Your task to perform on an android device: What is the capital of Brazil? Image 0: 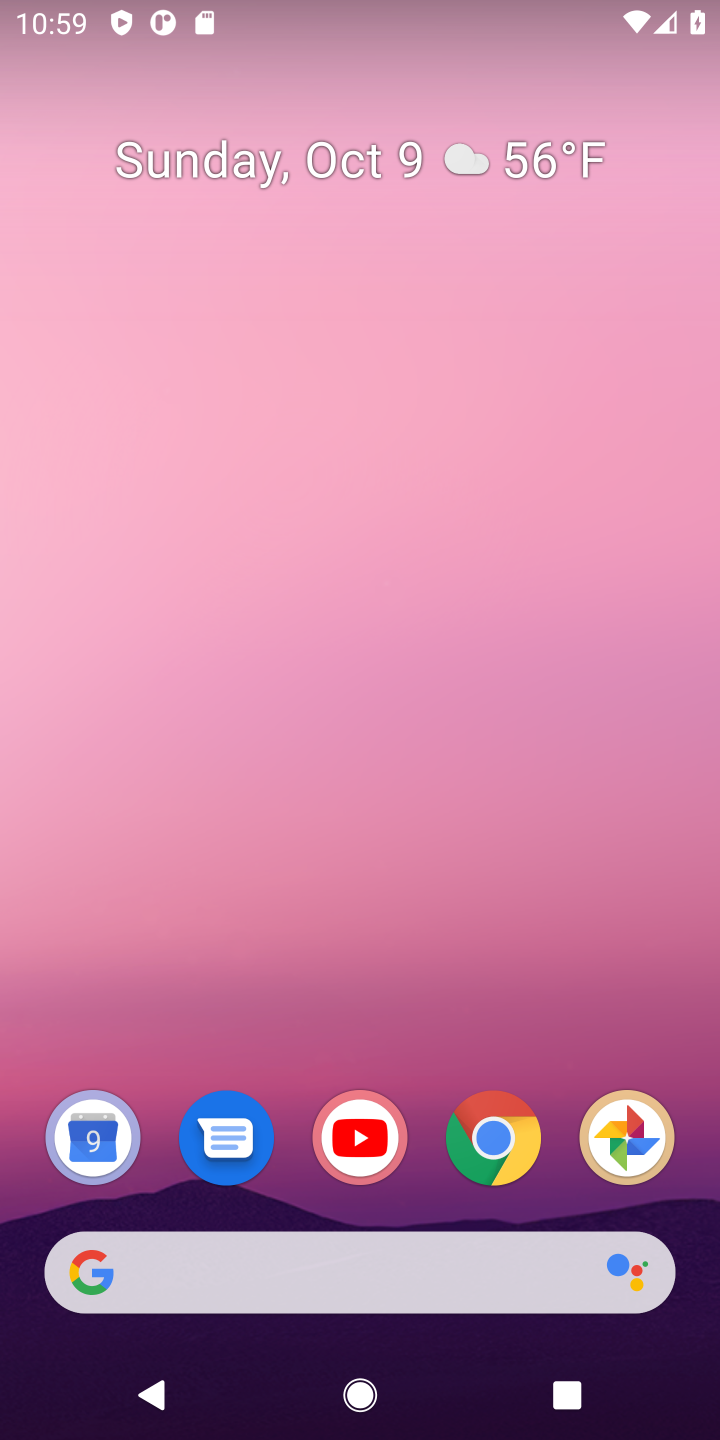
Step 0: drag from (410, 1067) to (350, 89)
Your task to perform on an android device: What is the capital of Brazil? Image 1: 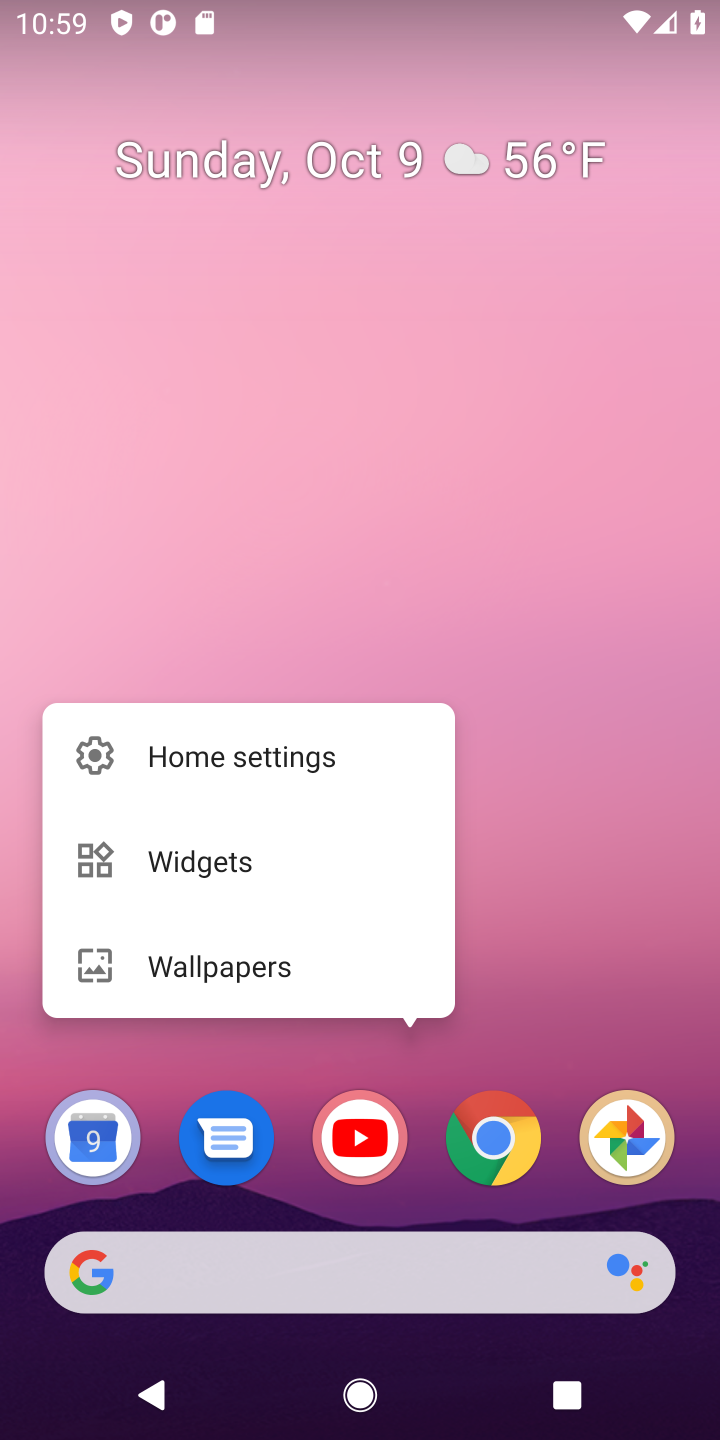
Step 1: click (588, 991)
Your task to perform on an android device: What is the capital of Brazil? Image 2: 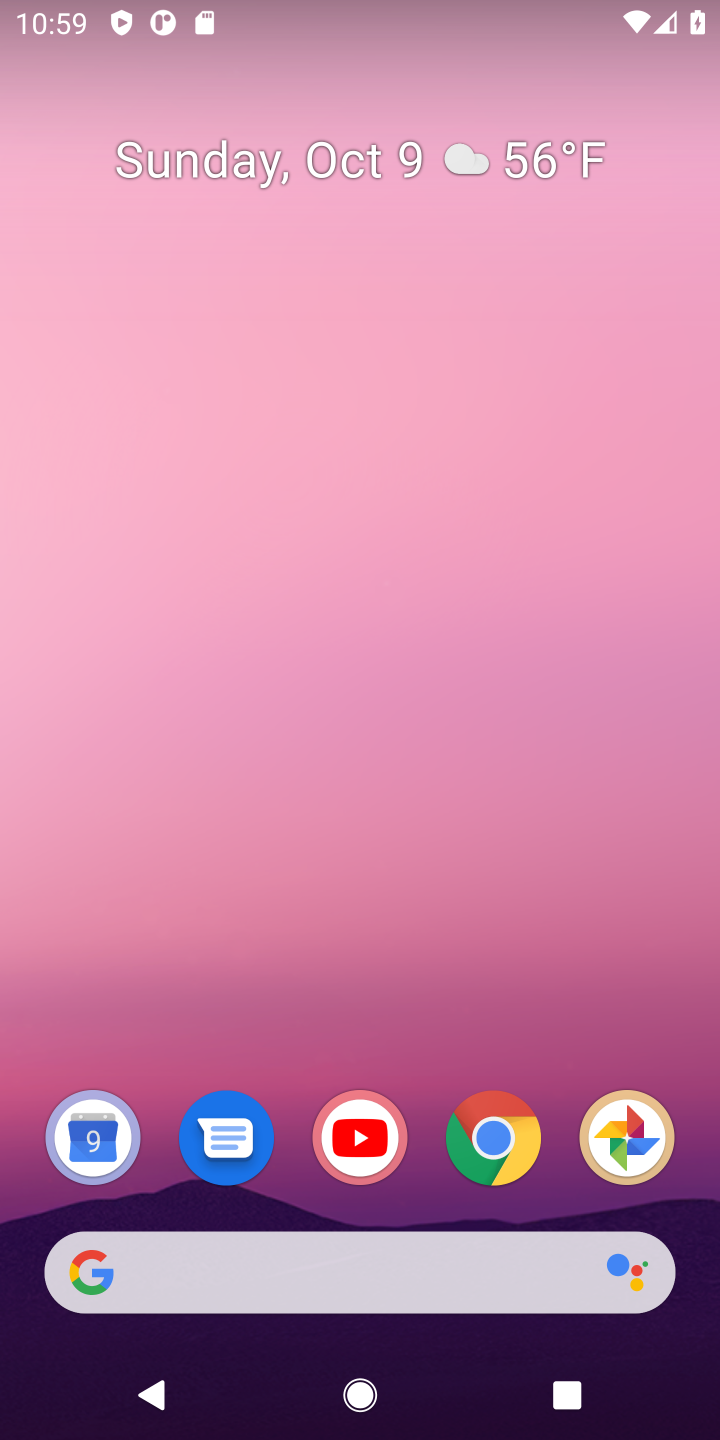
Step 2: drag from (425, 1047) to (425, 83)
Your task to perform on an android device: What is the capital of Brazil? Image 3: 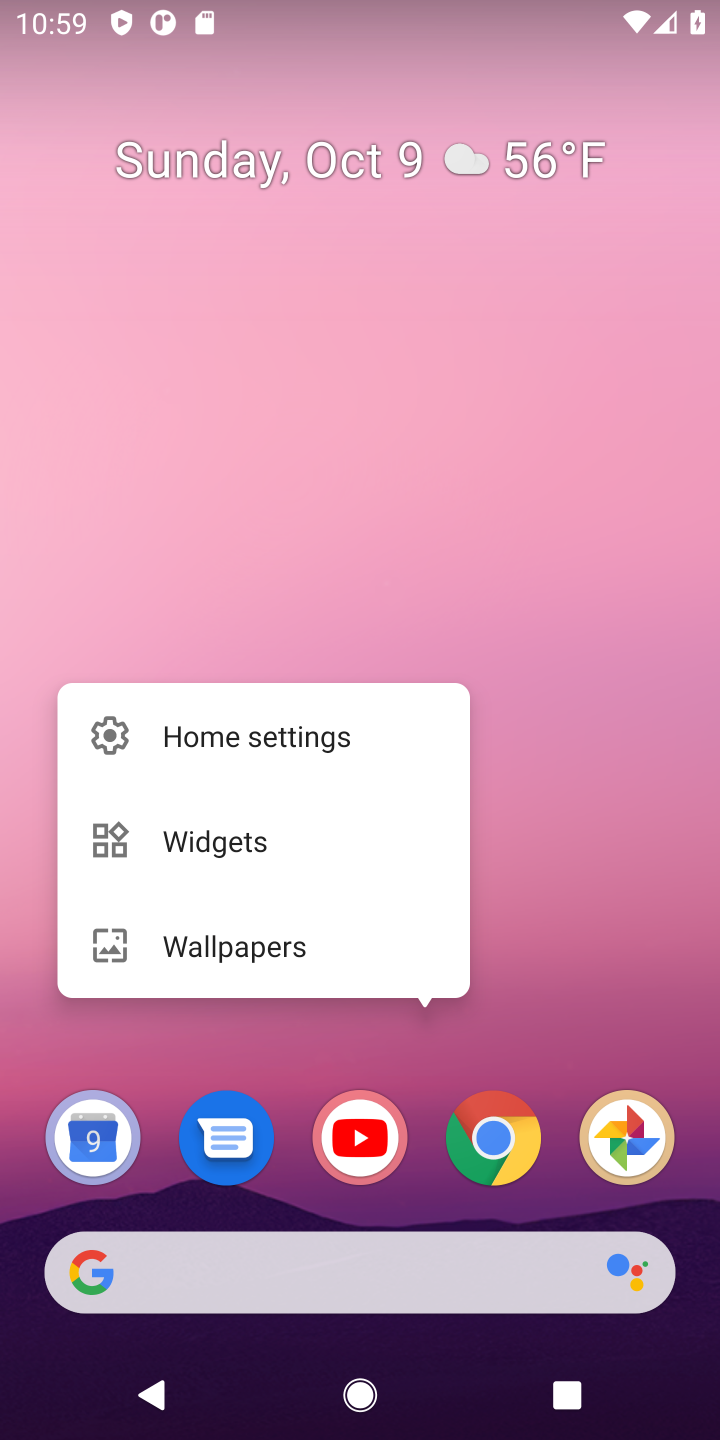
Step 3: click (598, 821)
Your task to perform on an android device: What is the capital of Brazil? Image 4: 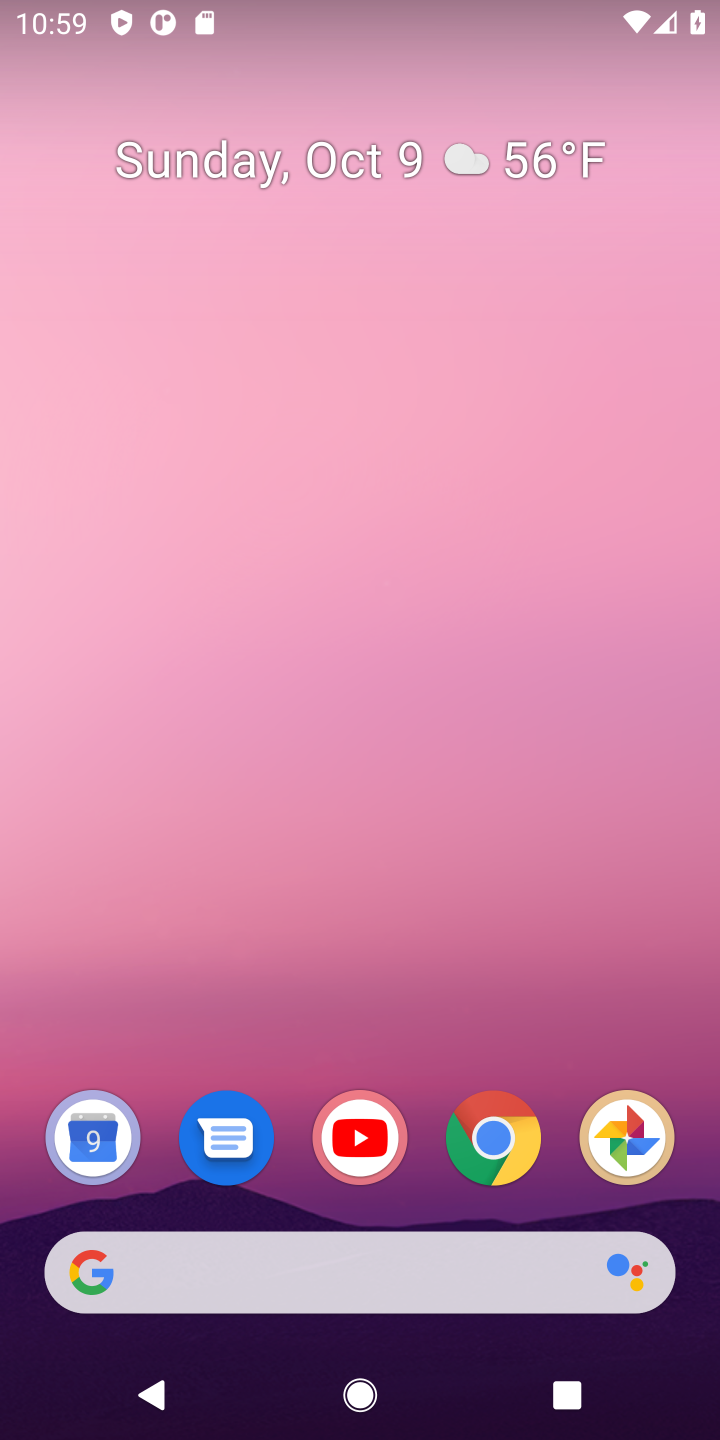
Step 4: drag from (561, 1071) to (538, 42)
Your task to perform on an android device: What is the capital of Brazil? Image 5: 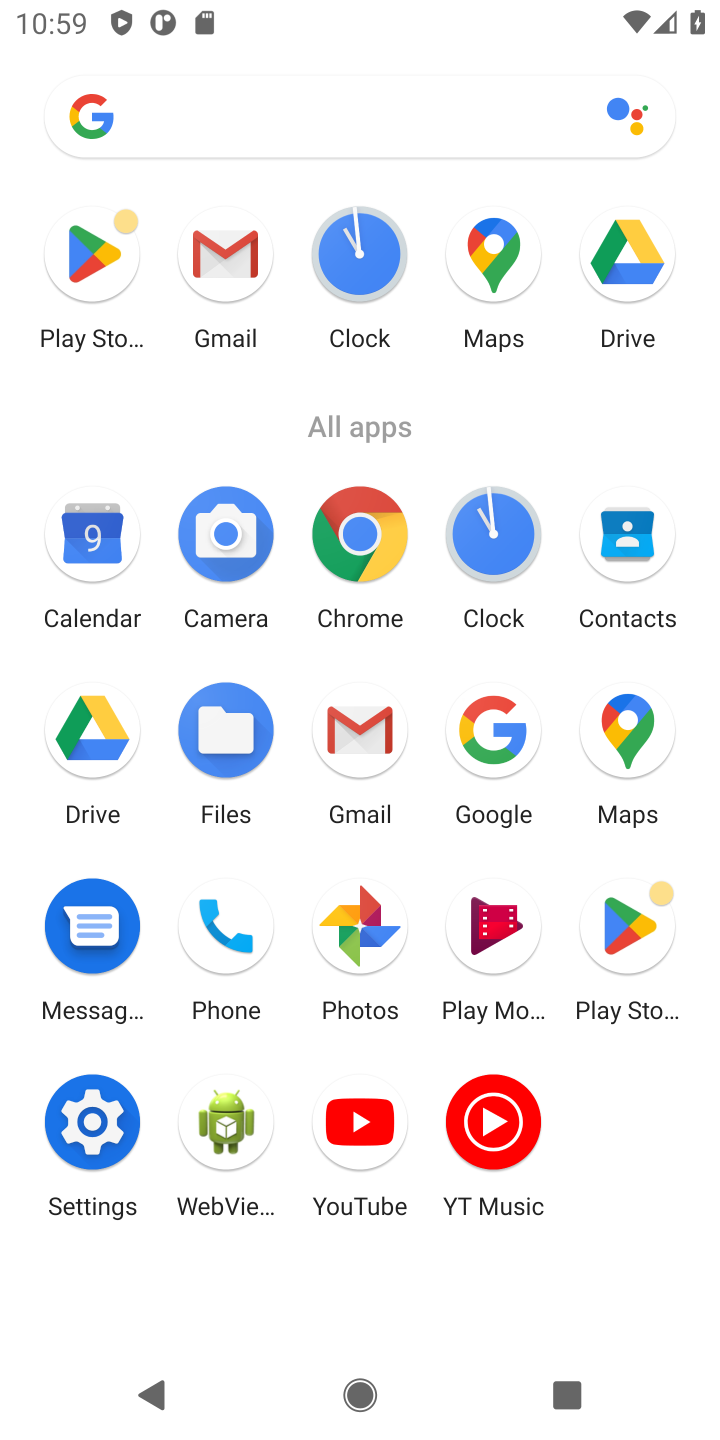
Step 5: click (356, 533)
Your task to perform on an android device: What is the capital of Brazil? Image 6: 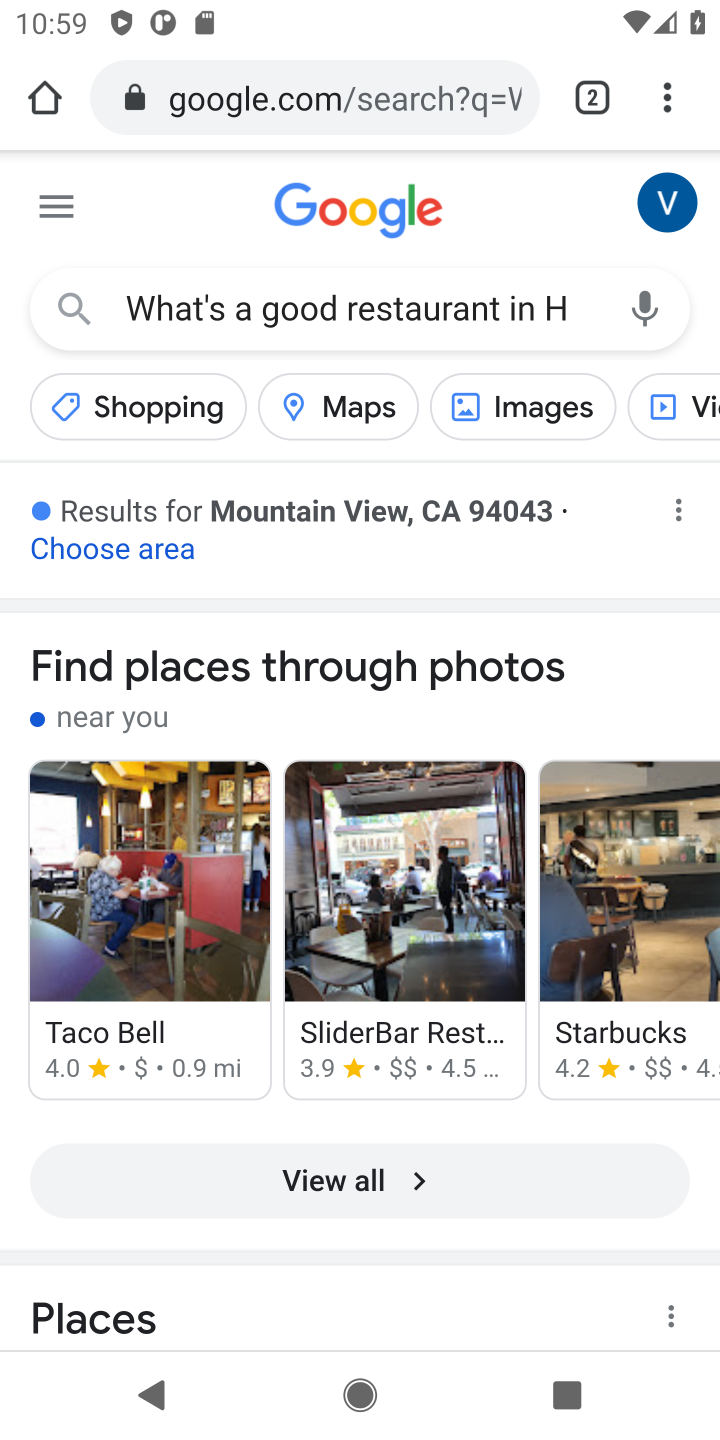
Step 6: click (282, 87)
Your task to perform on an android device: What is the capital of Brazil? Image 7: 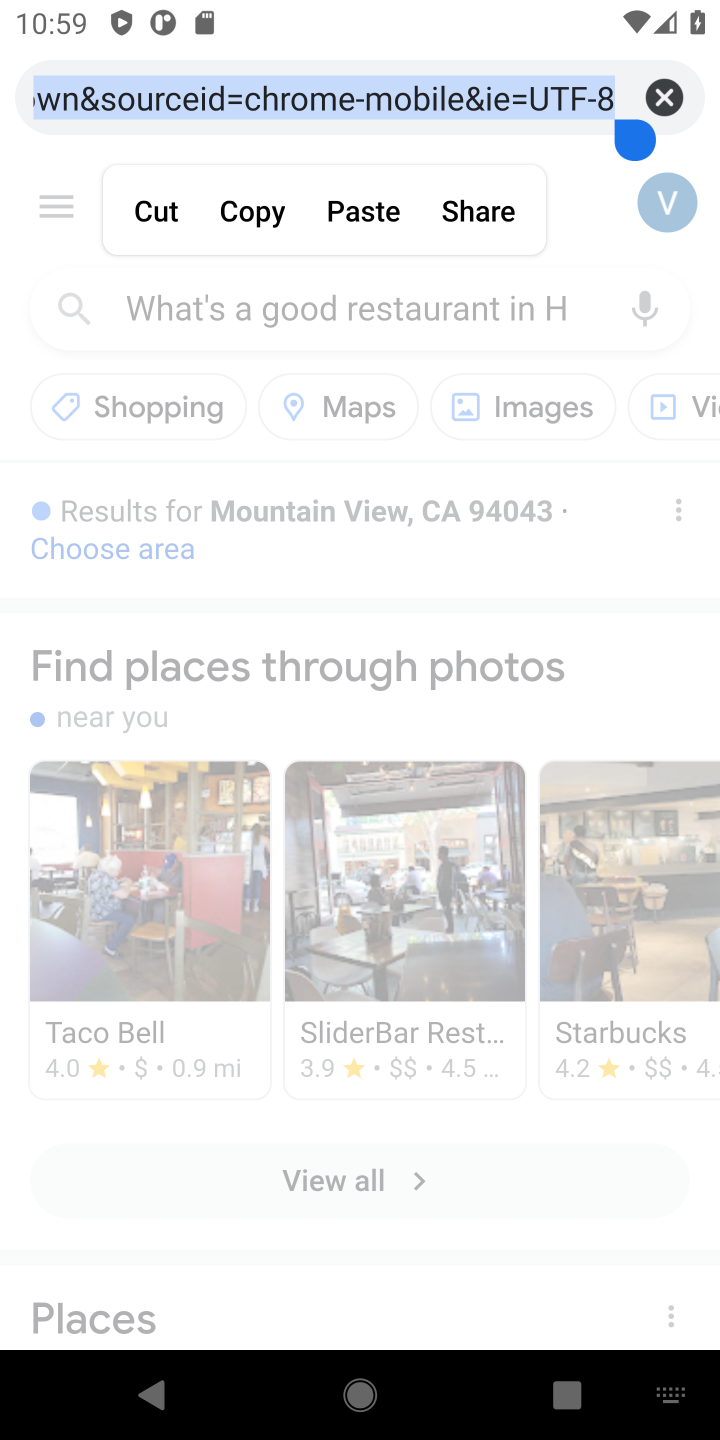
Step 7: click (670, 100)
Your task to perform on an android device: What is the capital of Brazil? Image 8: 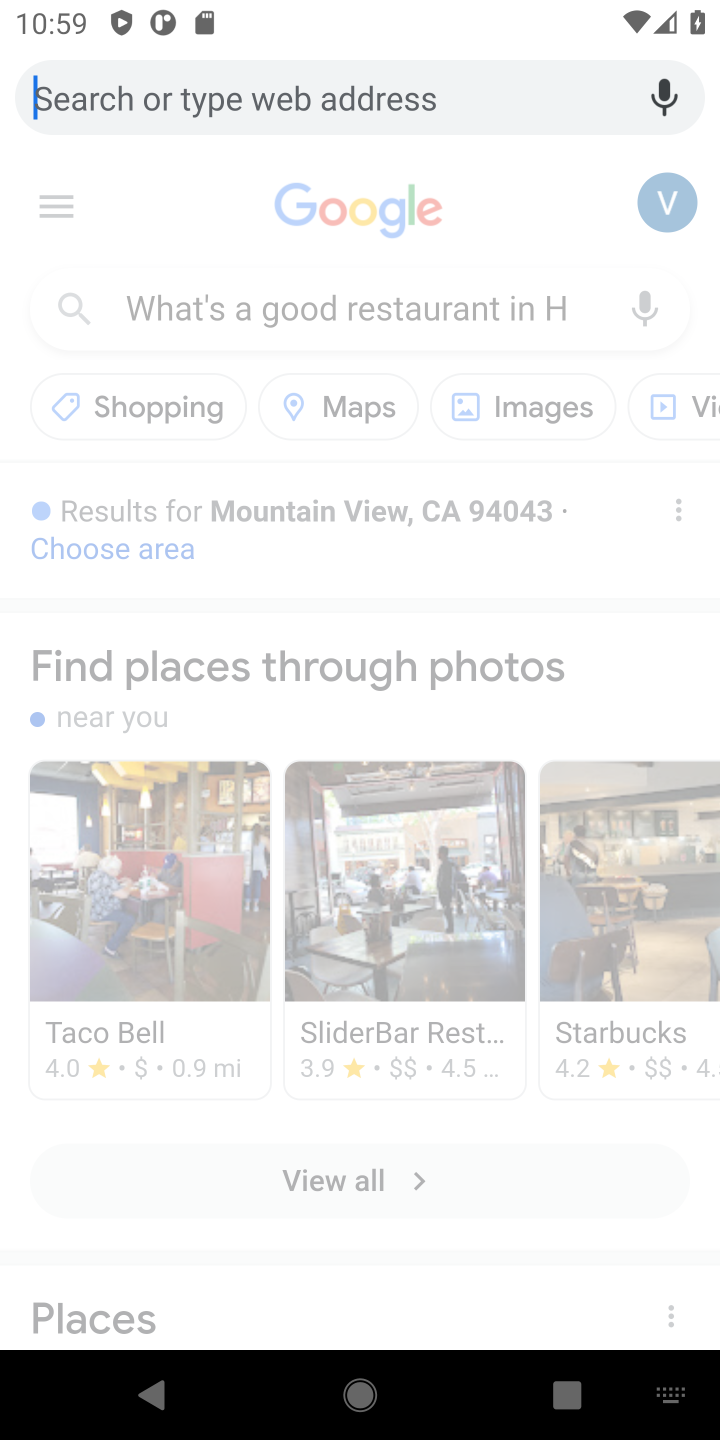
Step 8: type "What is the capital of Brazil?"
Your task to perform on an android device: What is the capital of Brazil? Image 9: 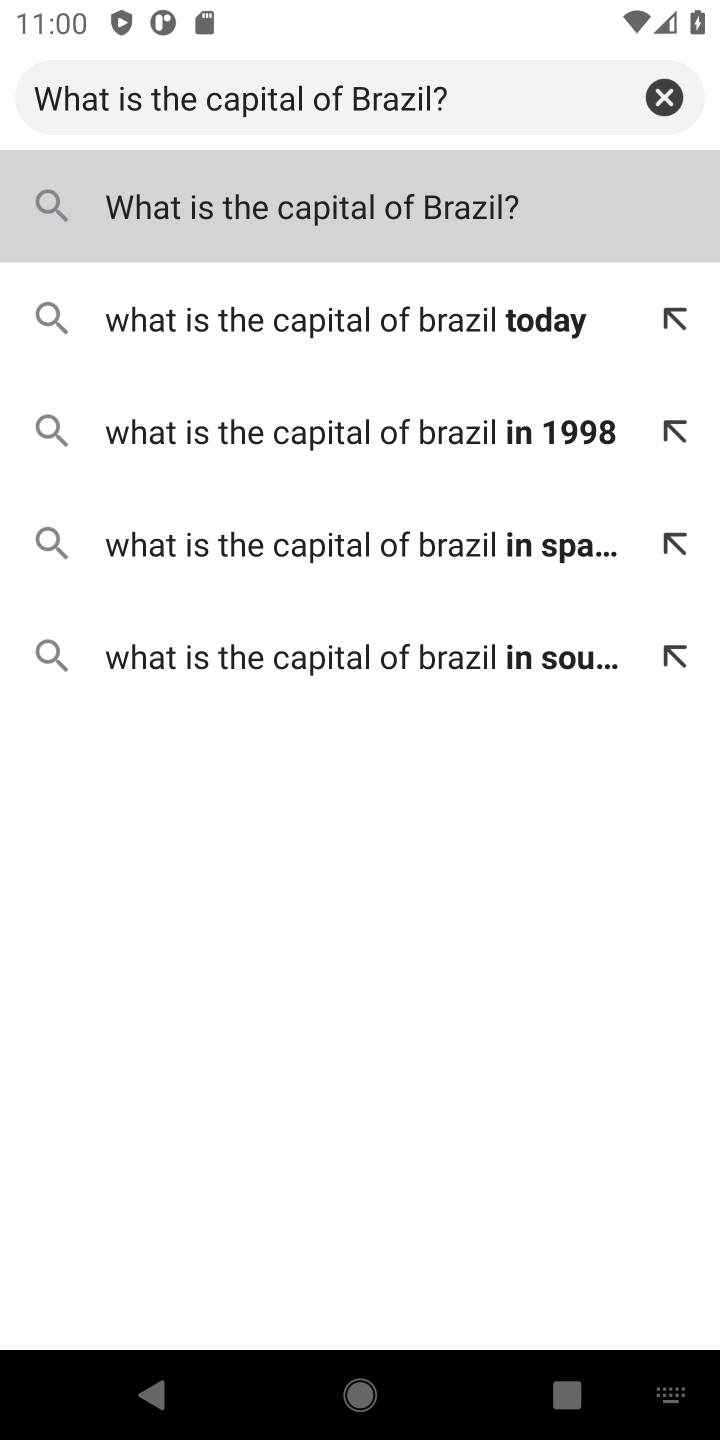
Step 9: click (246, 213)
Your task to perform on an android device: What is the capital of Brazil? Image 10: 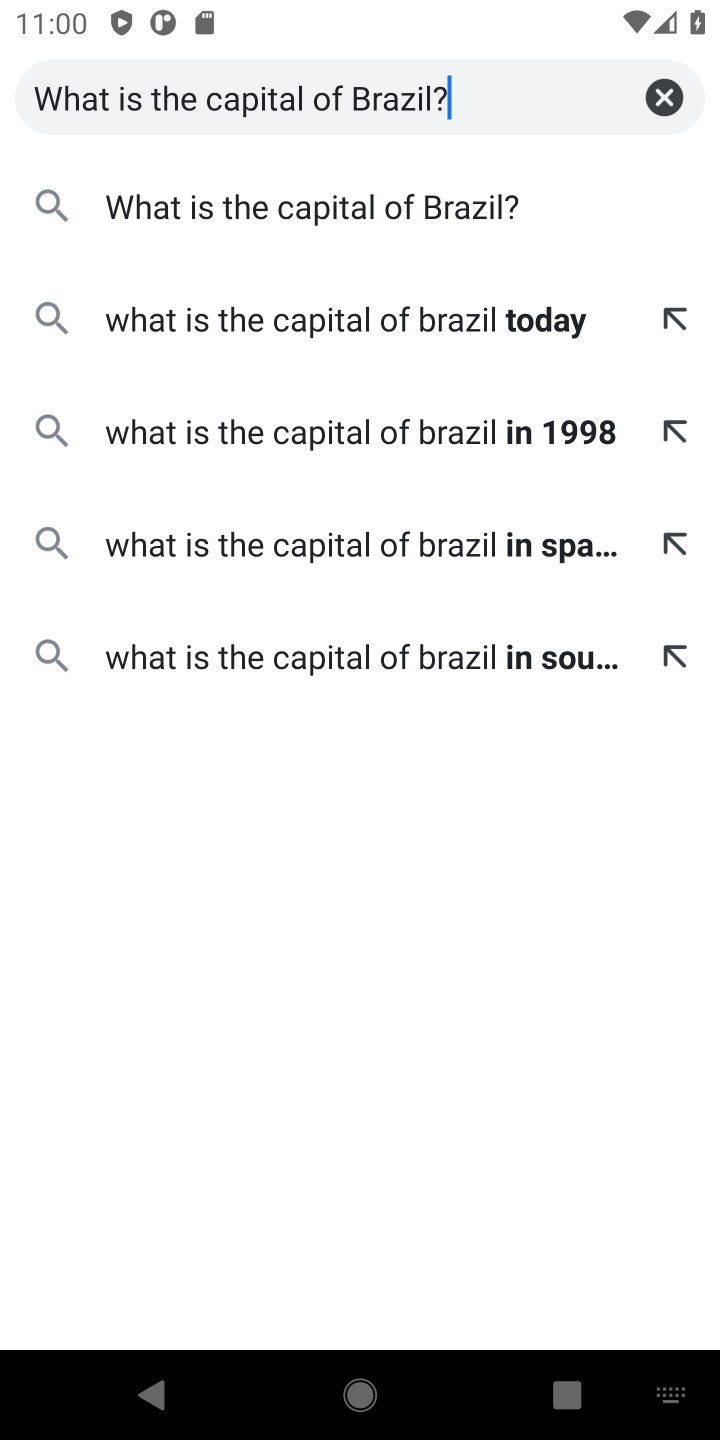
Step 10: click (440, 208)
Your task to perform on an android device: What is the capital of Brazil? Image 11: 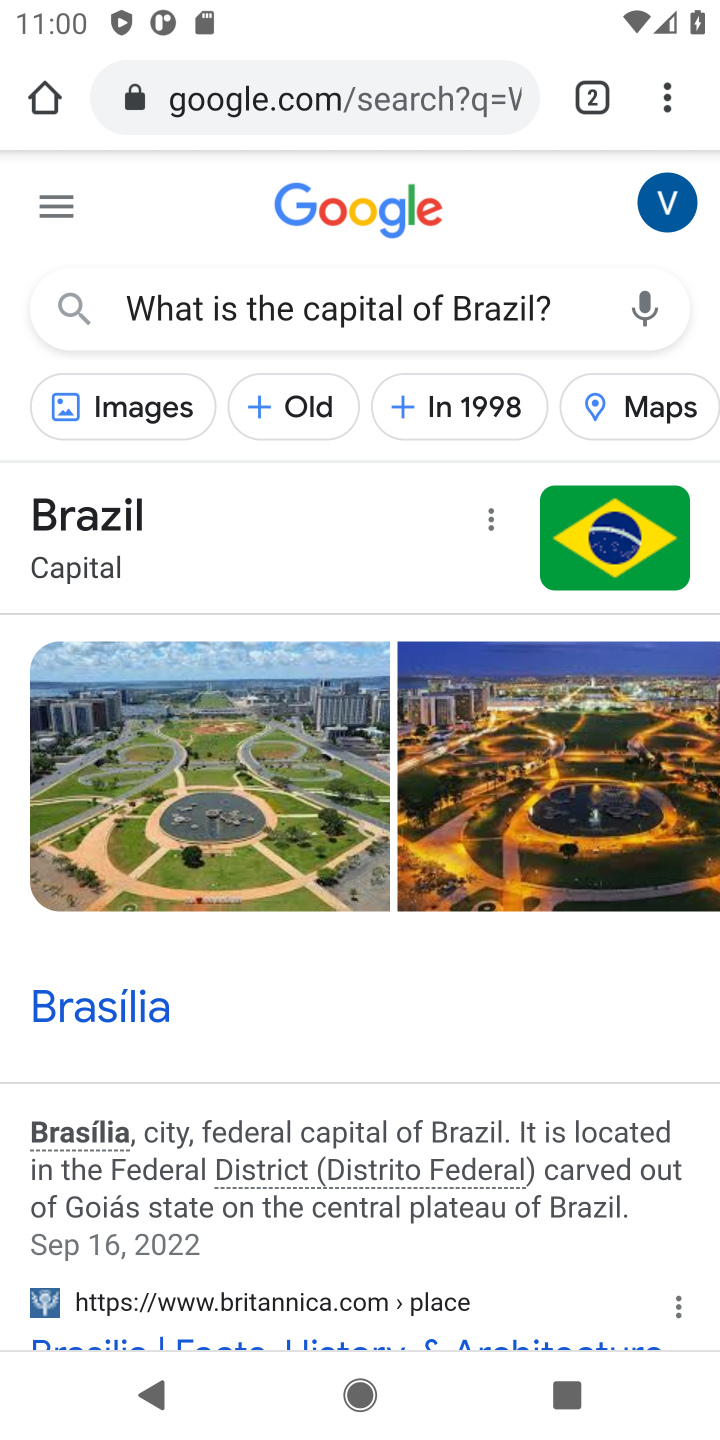
Step 11: task complete